Your task to perform on an android device: turn on showing notifications on the lock screen Image 0: 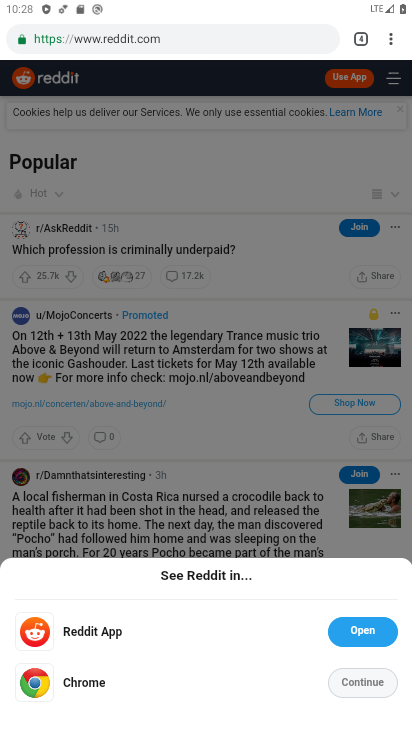
Step 0: press home button
Your task to perform on an android device: turn on showing notifications on the lock screen Image 1: 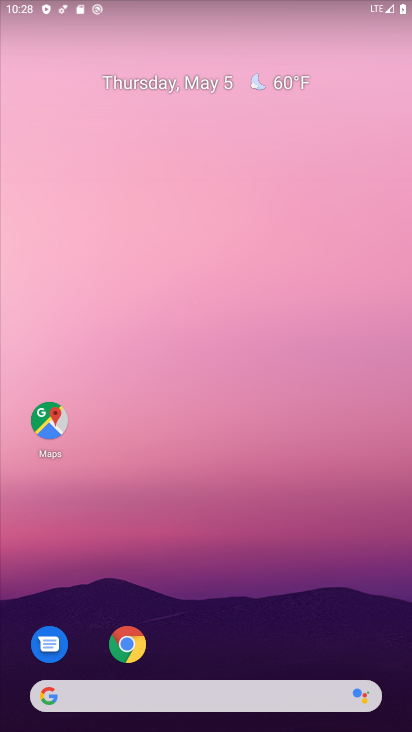
Step 1: drag from (350, 655) to (336, 163)
Your task to perform on an android device: turn on showing notifications on the lock screen Image 2: 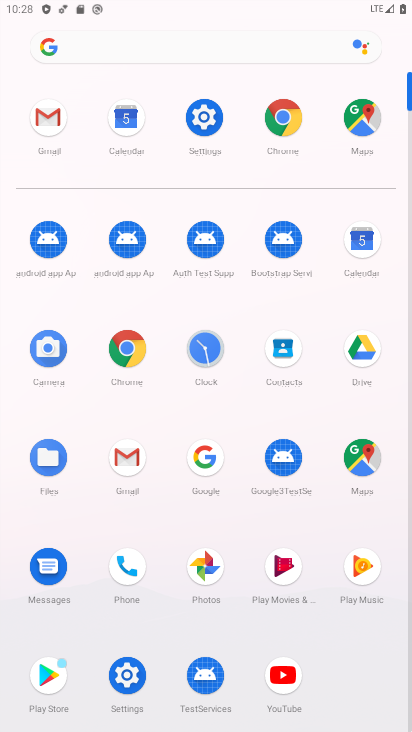
Step 2: click (212, 117)
Your task to perform on an android device: turn on showing notifications on the lock screen Image 3: 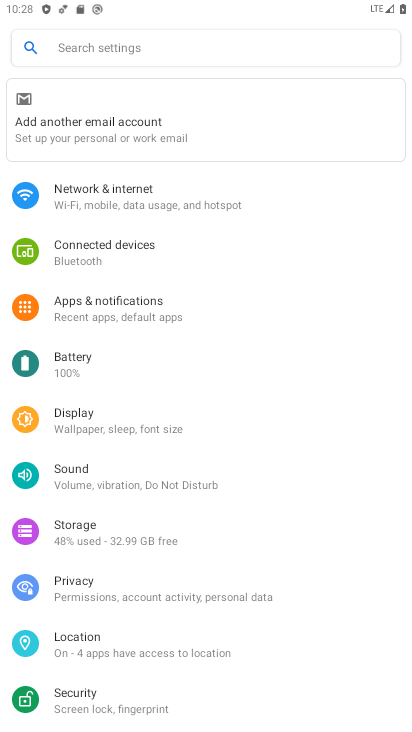
Step 3: click (126, 318)
Your task to perform on an android device: turn on showing notifications on the lock screen Image 4: 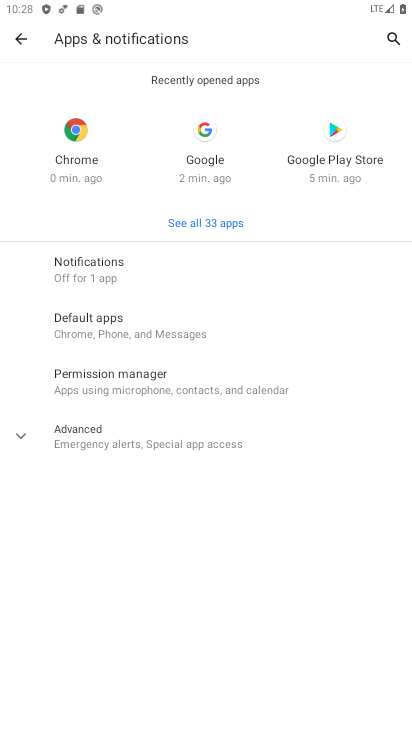
Step 4: click (97, 258)
Your task to perform on an android device: turn on showing notifications on the lock screen Image 5: 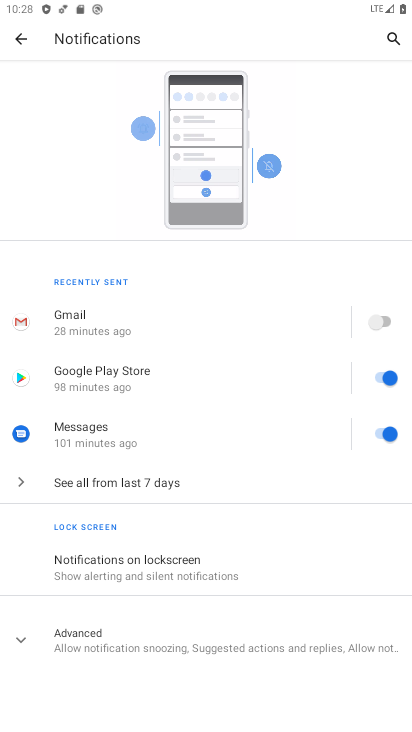
Step 5: click (183, 562)
Your task to perform on an android device: turn on showing notifications on the lock screen Image 6: 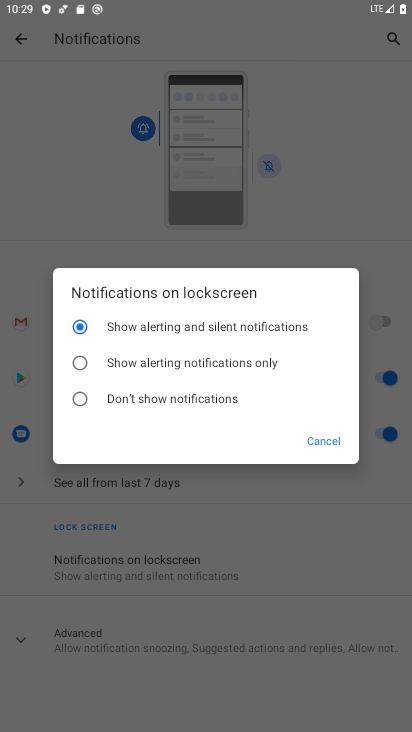
Step 6: task complete